Your task to perform on an android device: Open calendar and show me the fourth week of next month Image 0: 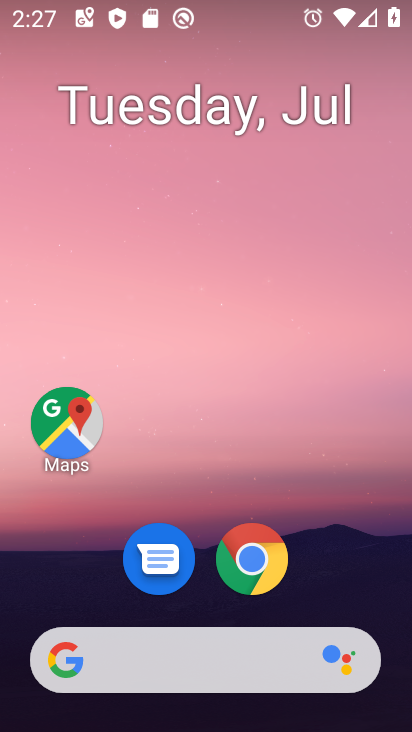
Step 0: press home button
Your task to perform on an android device: Open calendar and show me the fourth week of next month Image 1: 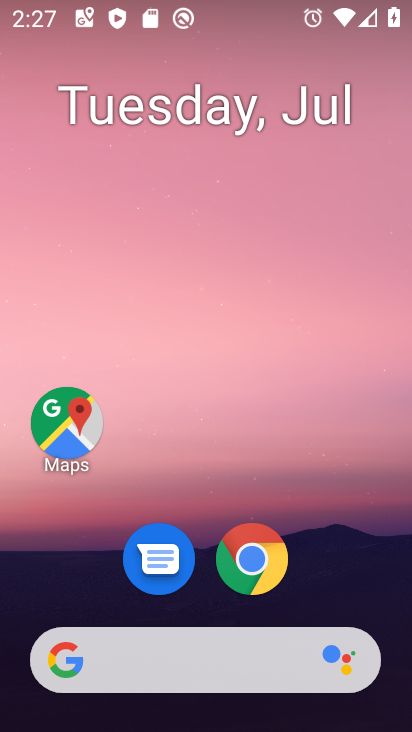
Step 1: drag from (340, 583) to (351, 98)
Your task to perform on an android device: Open calendar and show me the fourth week of next month Image 2: 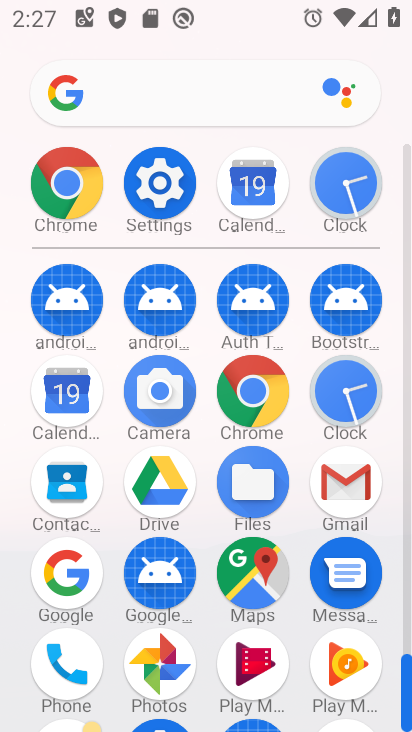
Step 2: click (77, 389)
Your task to perform on an android device: Open calendar and show me the fourth week of next month Image 3: 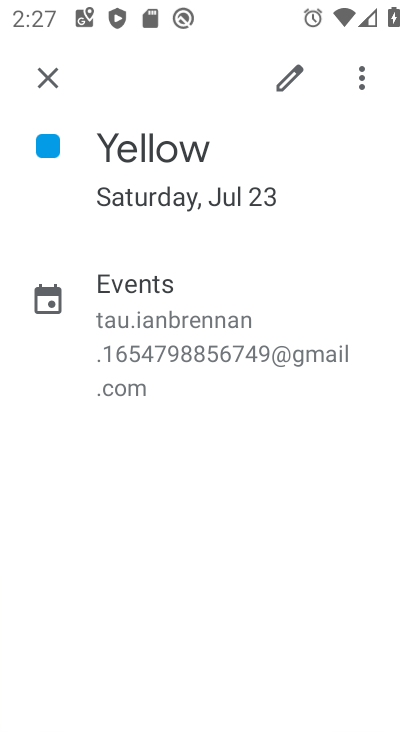
Step 3: press back button
Your task to perform on an android device: Open calendar and show me the fourth week of next month Image 4: 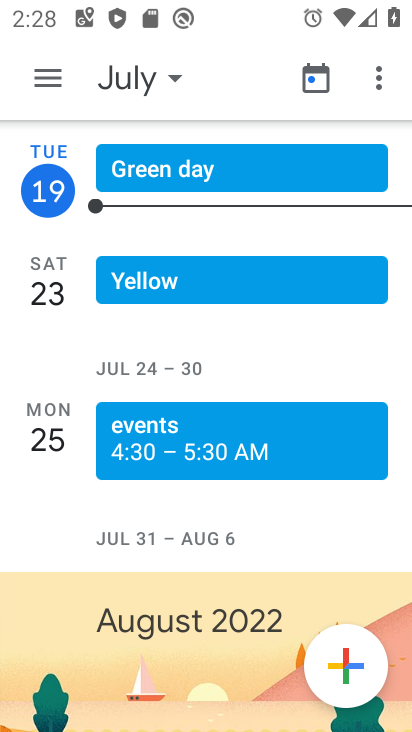
Step 4: click (173, 75)
Your task to perform on an android device: Open calendar and show me the fourth week of next month Image 5: 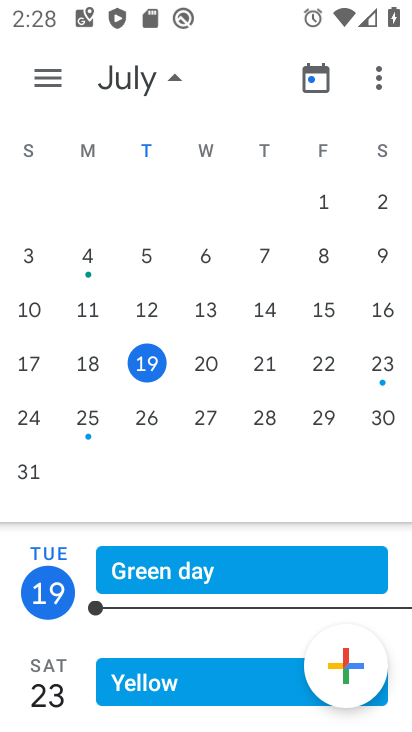
Step 5: drag from (398, 227) to (20, 198)
Your task to perform on an android device: Open calendar and show me the fourth week of next month Image 6: 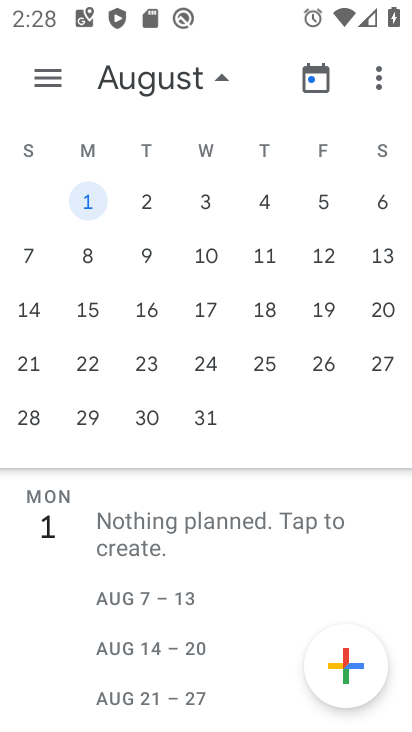
Step 6: click (88, 362)
Your task to perform on an android device: Open calendar and show me the fourth week of next month Image 7: 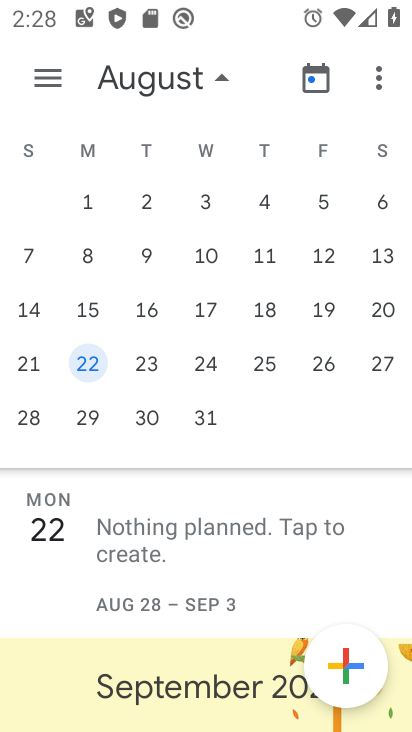
Step 7: task complete